Your task to perform on an android device: toggle translation in the chrome app Image 0: 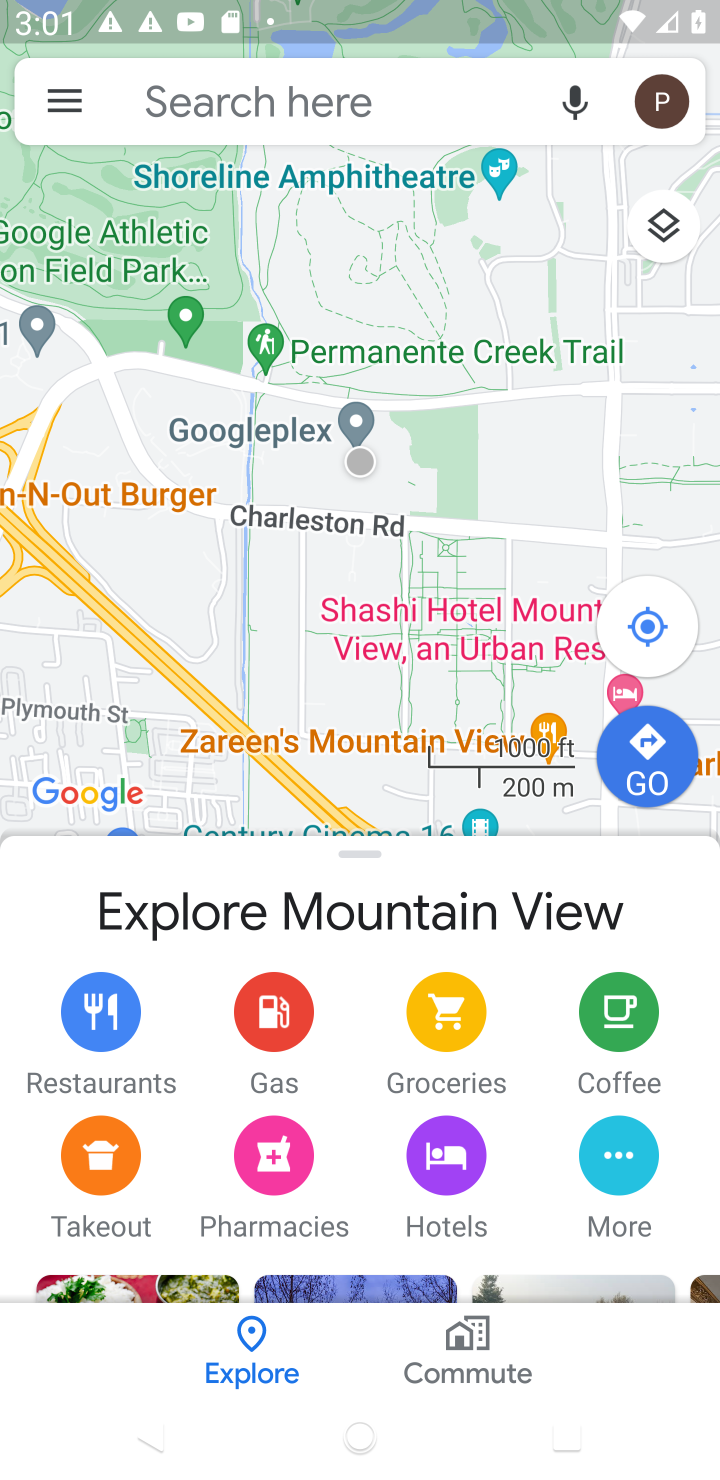
Step 0: press home button
Your task to perform on an android device: toggle translation in the chrome app Image 1: 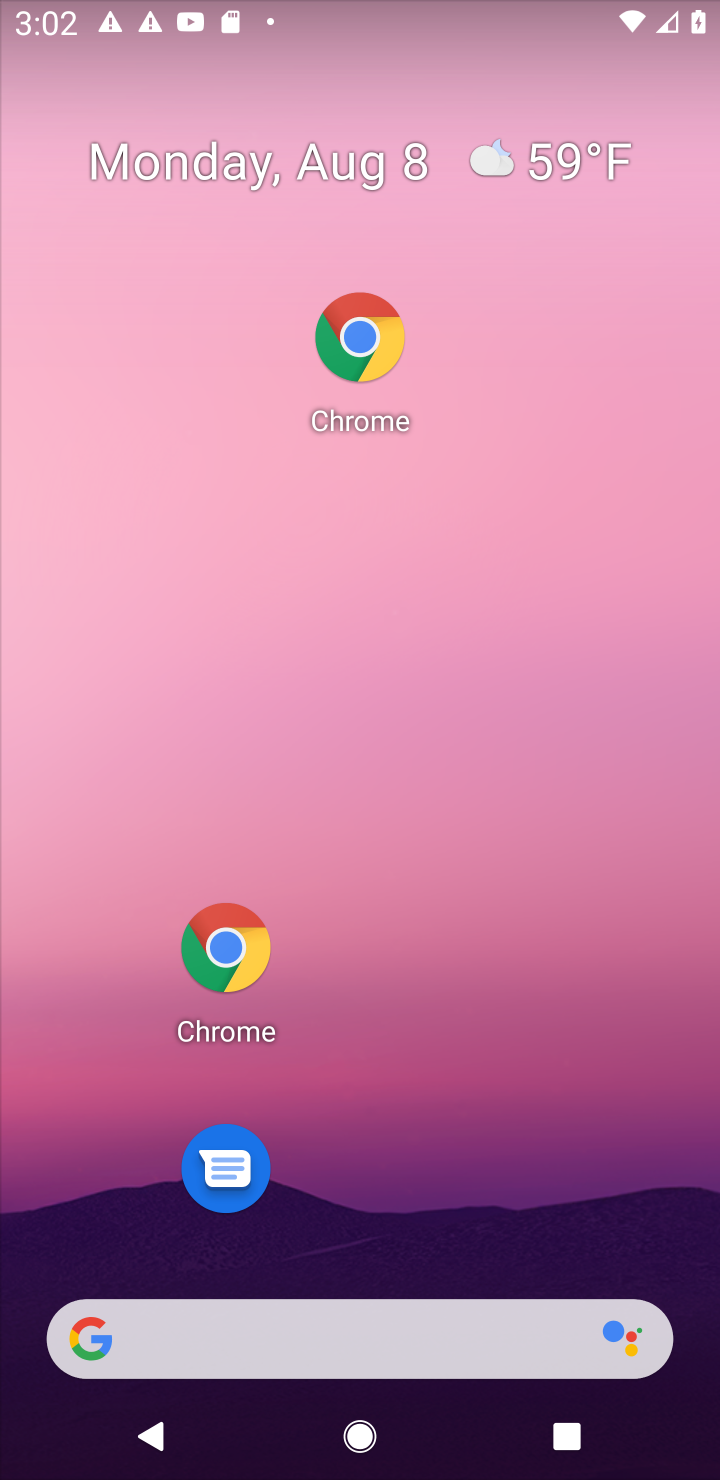
Step 1: click (244, 1011)
Your task to perform on an android device: toggle translation in the chrome app Image 2: 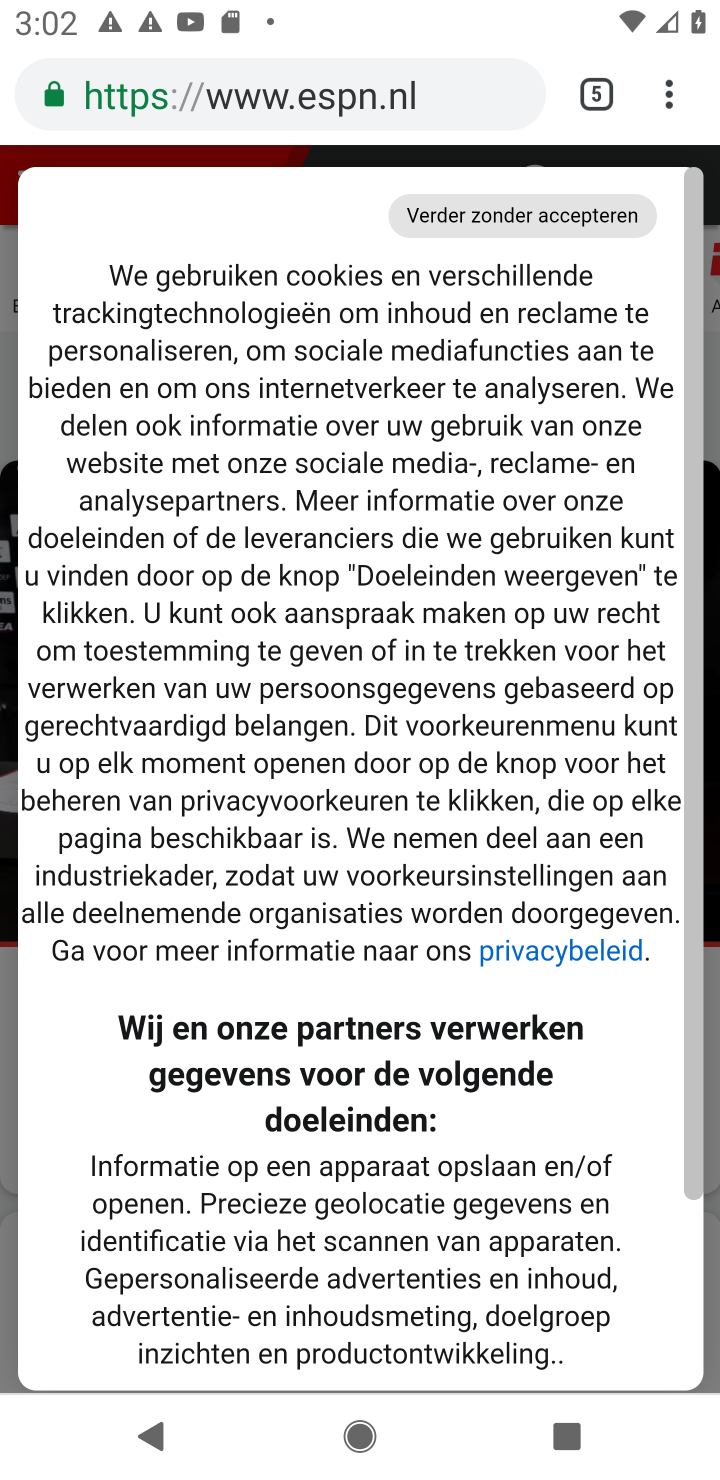
Step 2: click (658, 91)
Your task to perform on an android device: toggle translation in the chrome app Image 3: 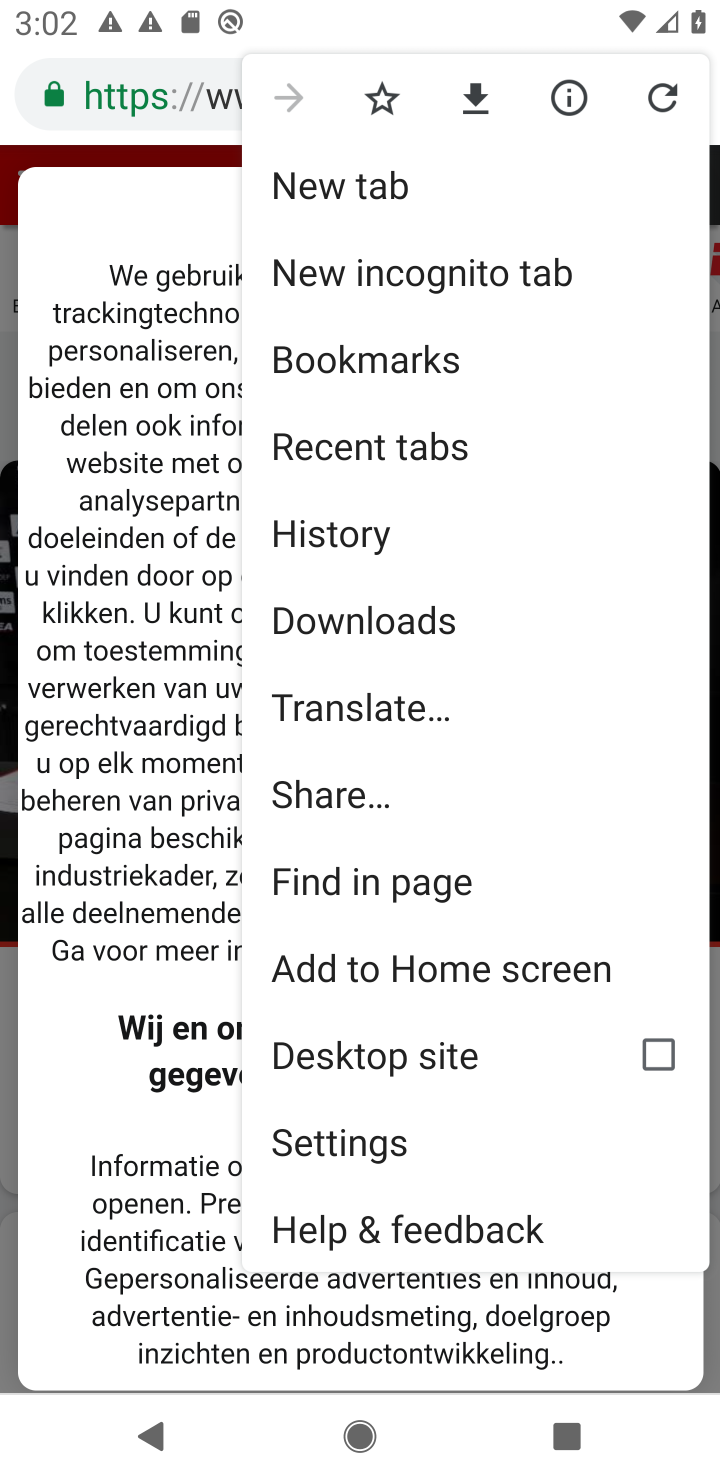
Step 3: click (385, 1142)
Your task to perform on an android device: toggle translation in the chrome app Image 4: 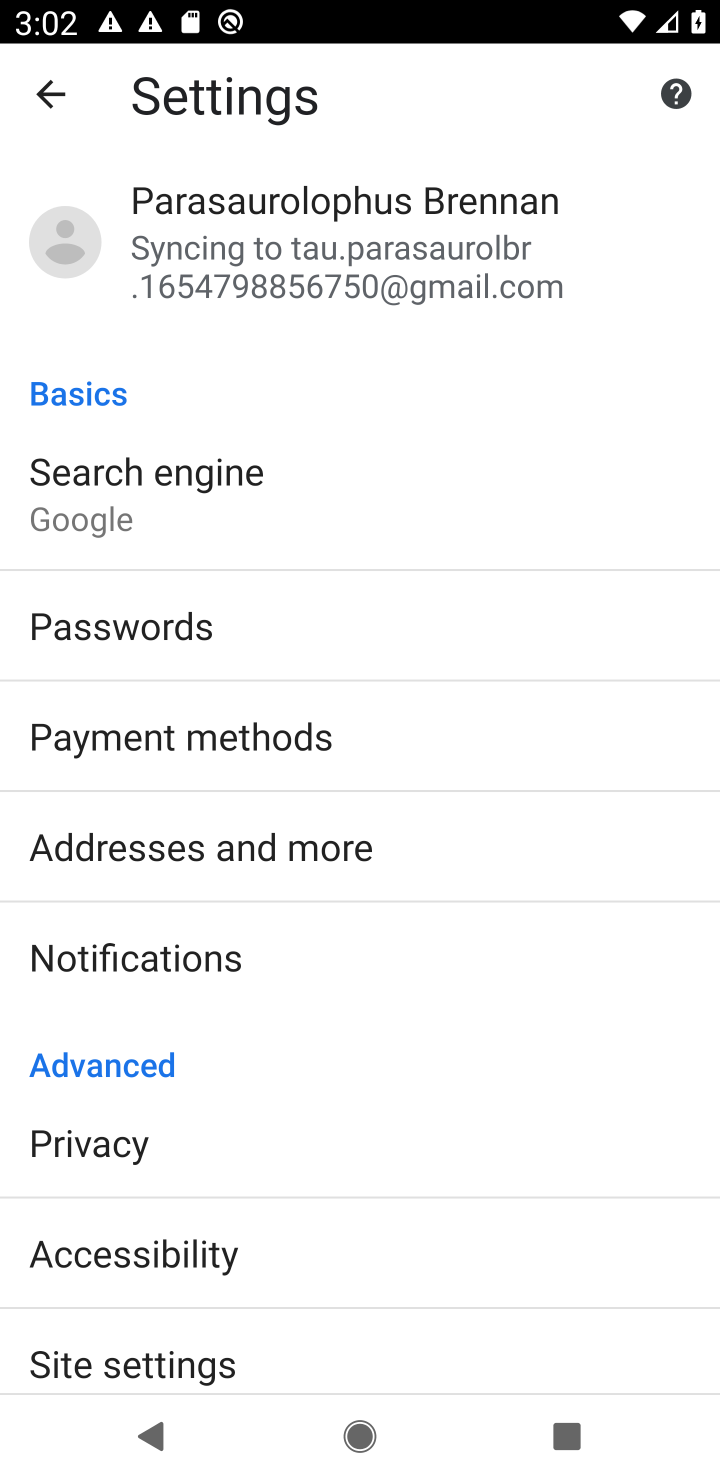
Step 4: drag from (339, 1309) to (342, 763)
Your task to perform on an android device: toggle translation in the chrome app Image 5: 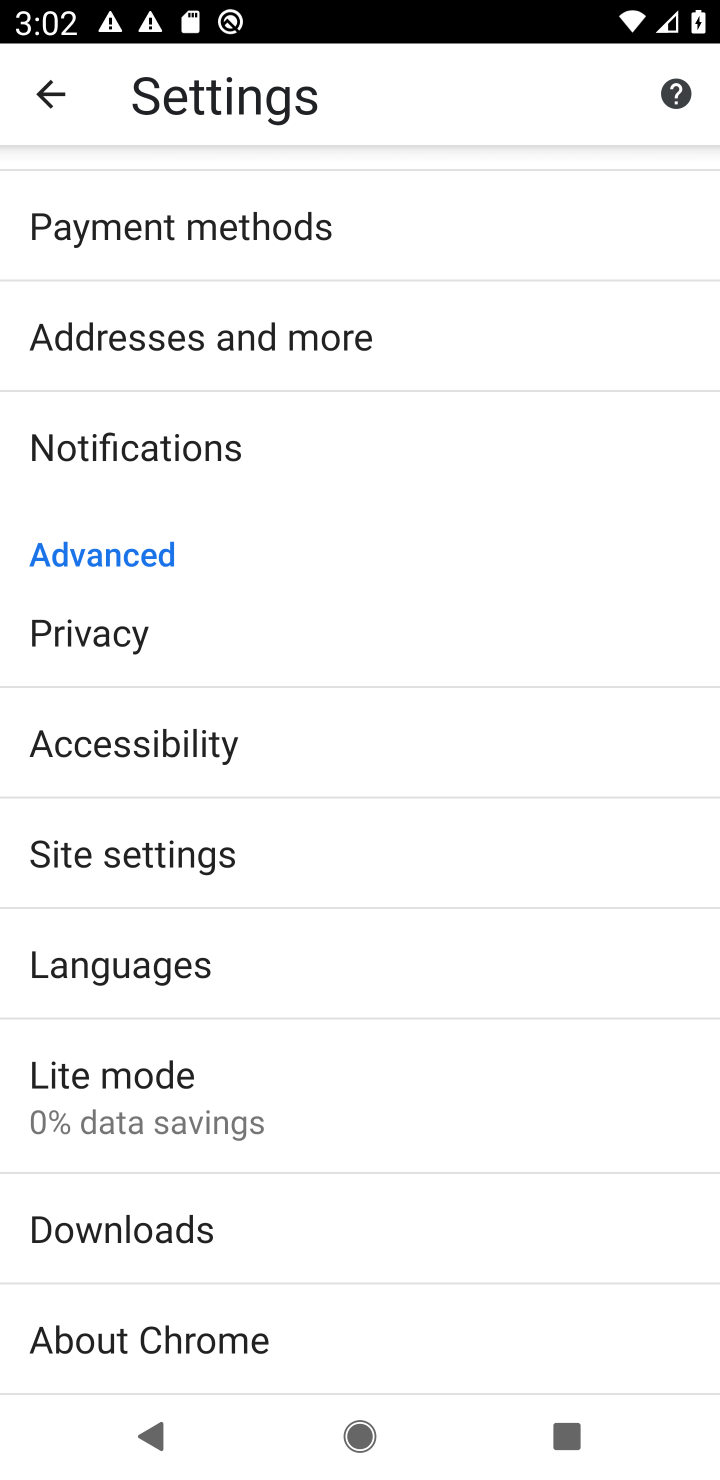
Step 5: click (339, 846)
Your task to perform on an android device: toggle translation in the chrome app Image 6: 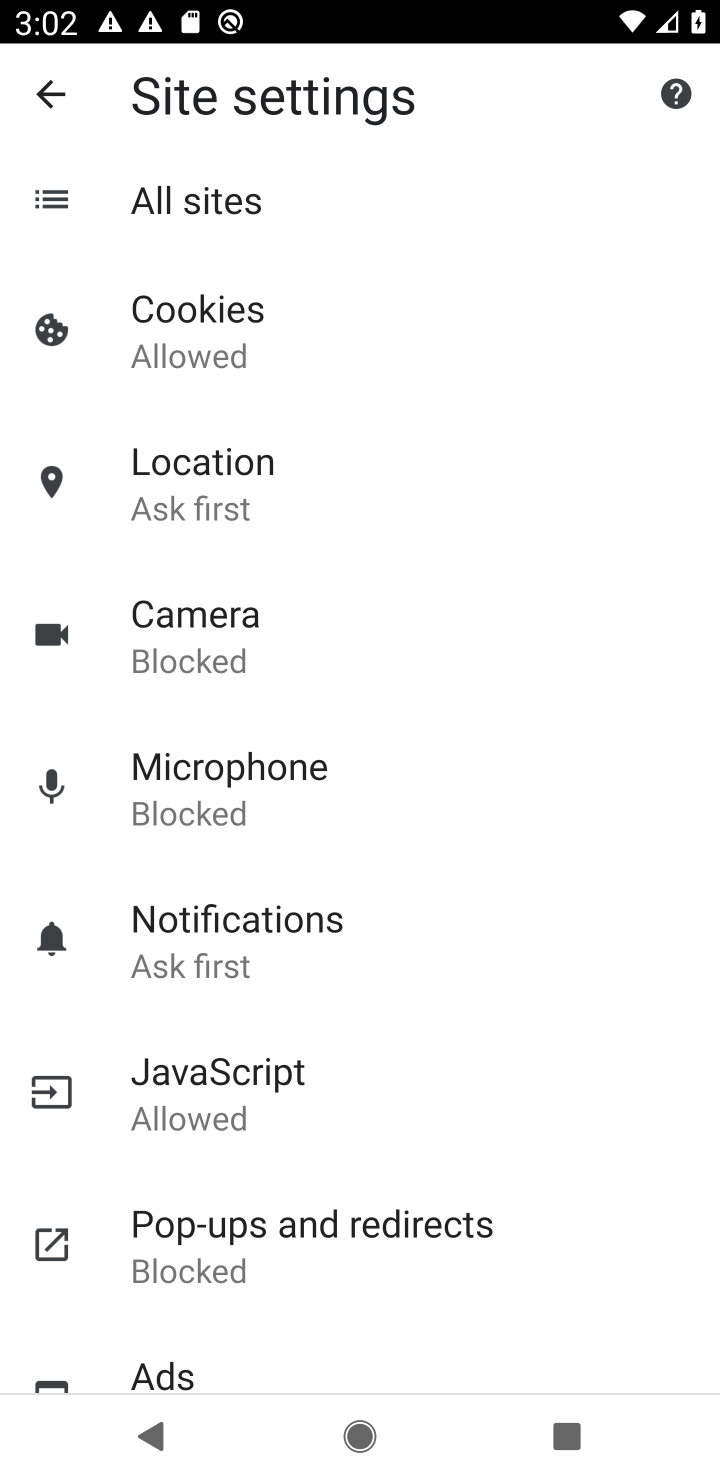
Step 6: task complete